Your task to perform on an android device: toggle notification dots Image 0: 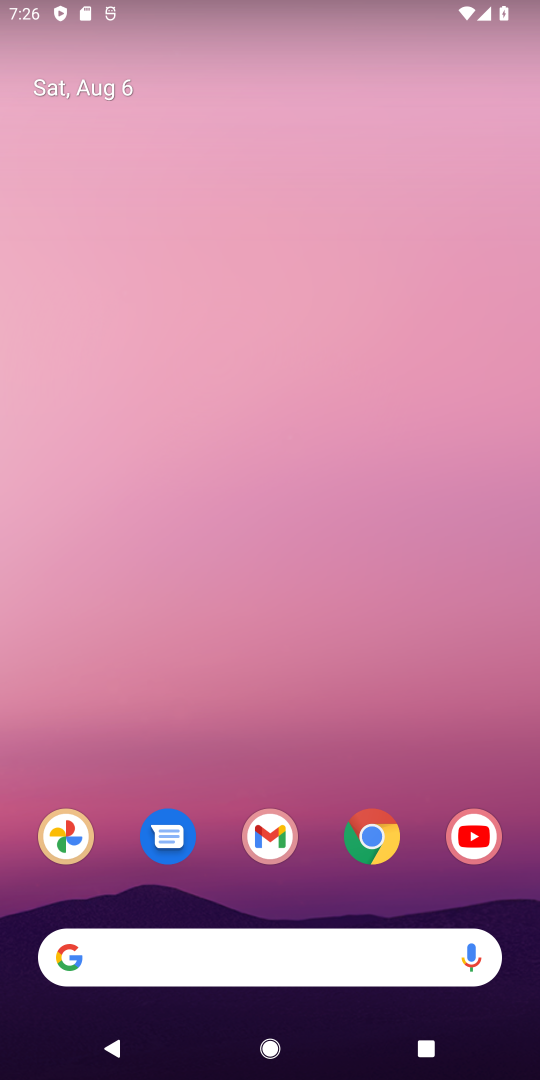
Step 0: drag from (275, 808) to (322, 209)
Your task to perform on an android device: toggle notification dots Image 1: 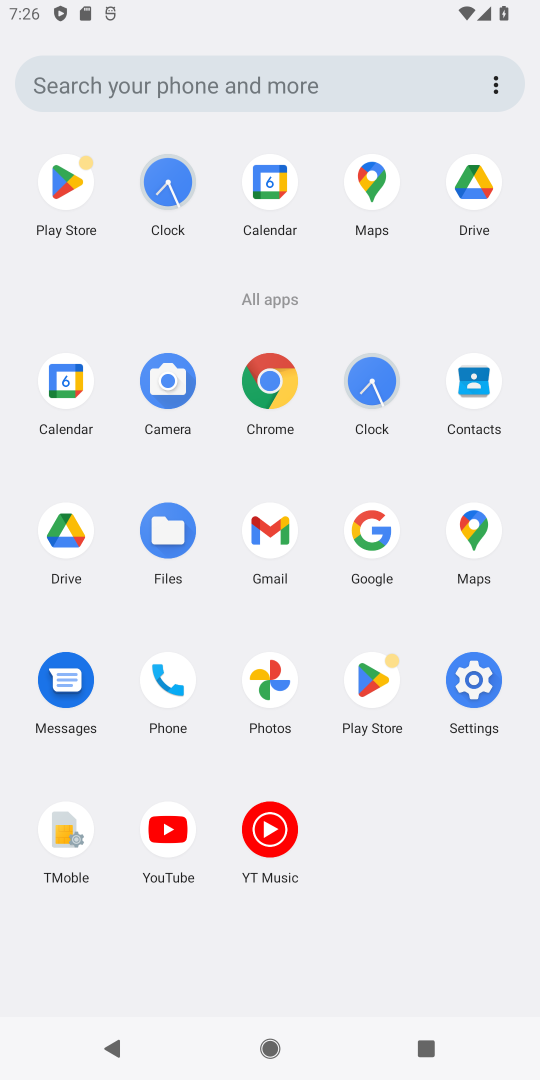
Step 1: click (467, 687)
Your task to perform on an android device: toggle notification dots Image 2: 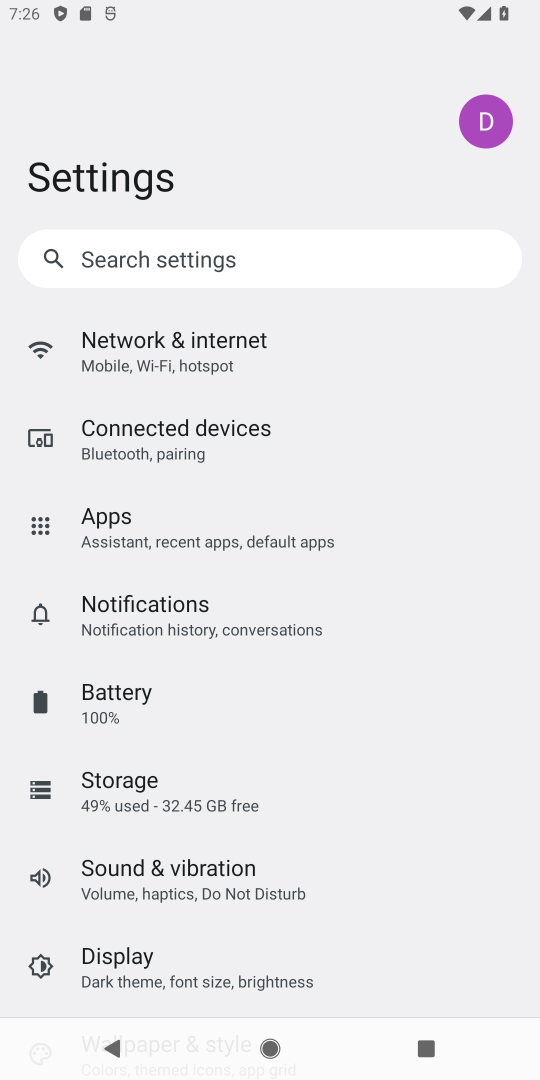
Step 2: click (177, 606)
Your task to perform on an android device: toggle notification dots Image 3: 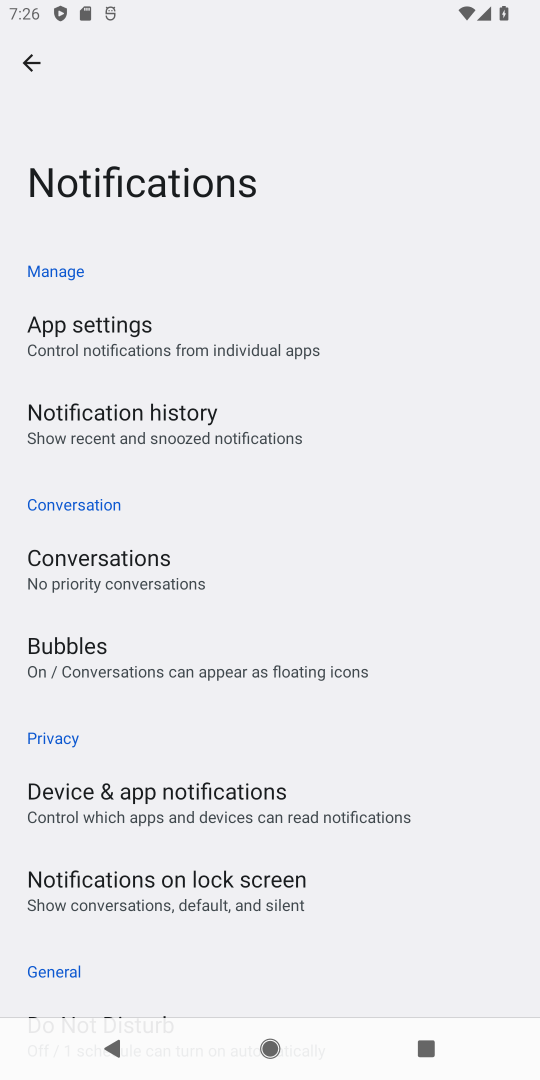
Step 3: drag from (146, 986) to (151, 437)
Your task to perform on an android device: toggle notification dots Image 4: 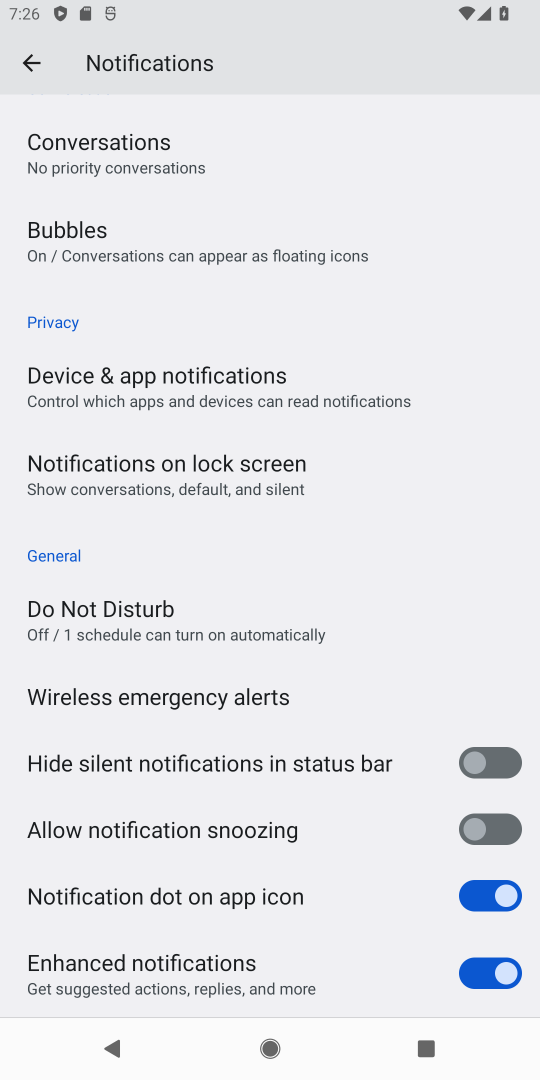
Step 4: click (483, 898)
Your task to perform on an android device: toggle notification dots Image 5: 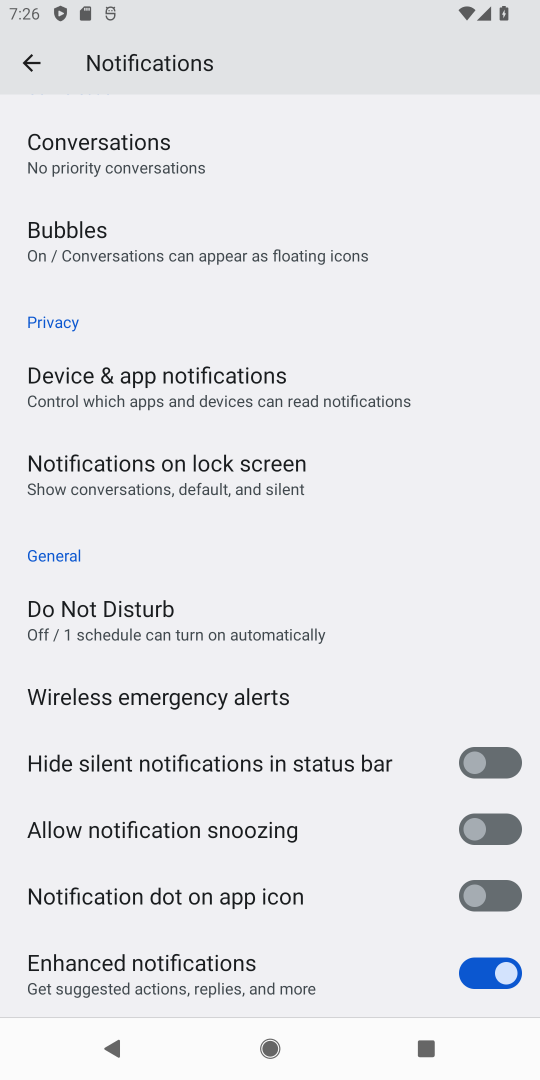
Step 5: task complete